Your task to perform on an android device: Go to accessibility settings Image 0: 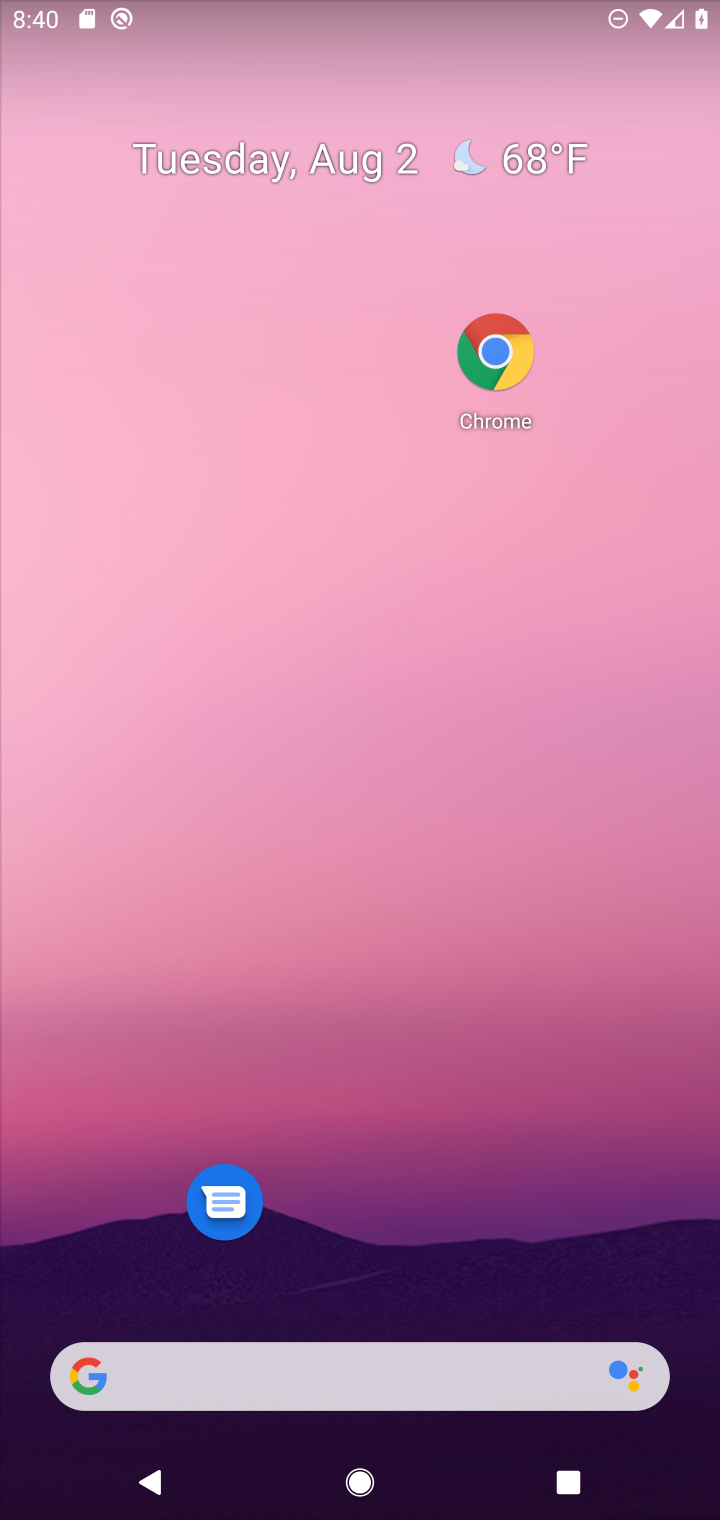
Step 0: drag from (413, 1309) to (515, 178)
Your task to perform on an android device: Go to accessibility settings Image 1: 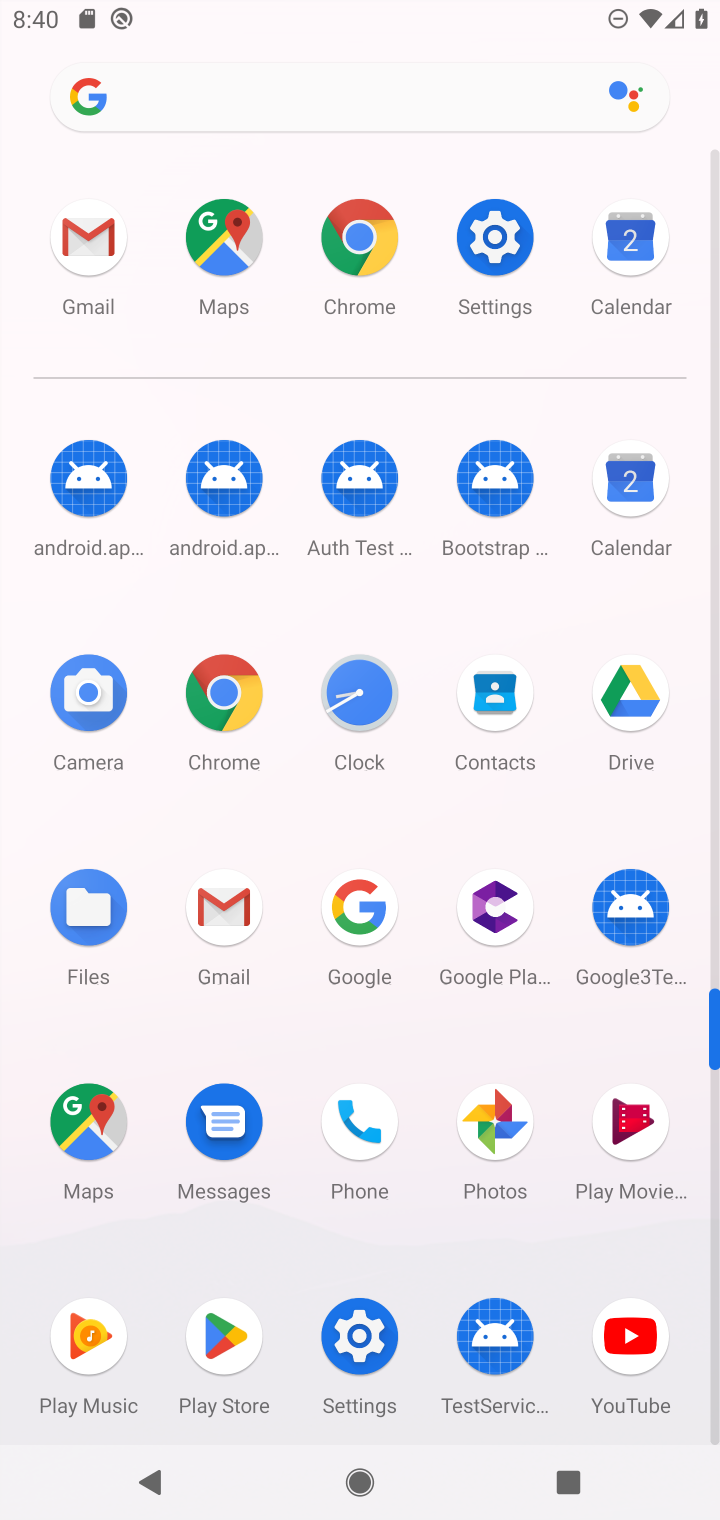
Step 1: click (505, 263)
Your task to perform on an android device: Go to accessibility settings Image 2: 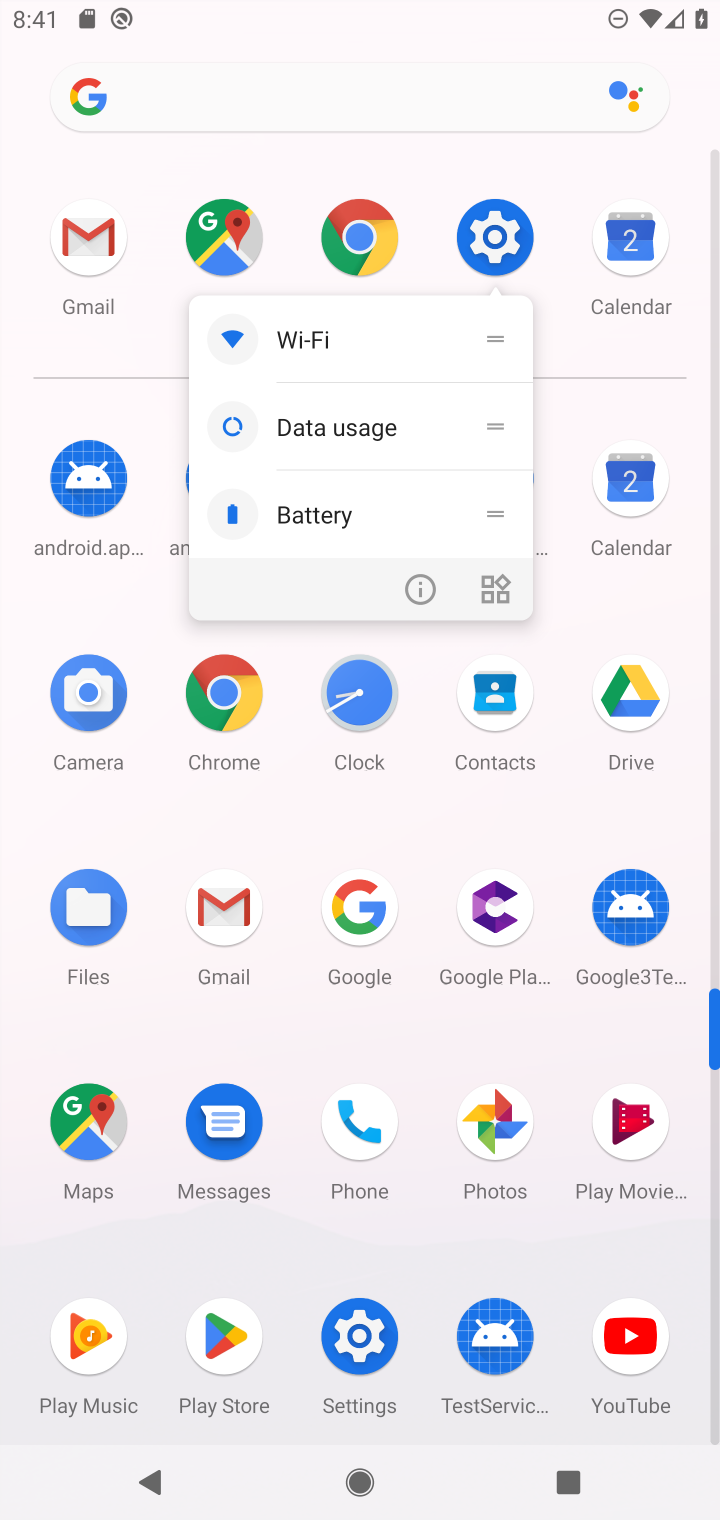
Step 2: click (505, 263)
Your task to perform on an android device: Go to accessibility settings Image 3: 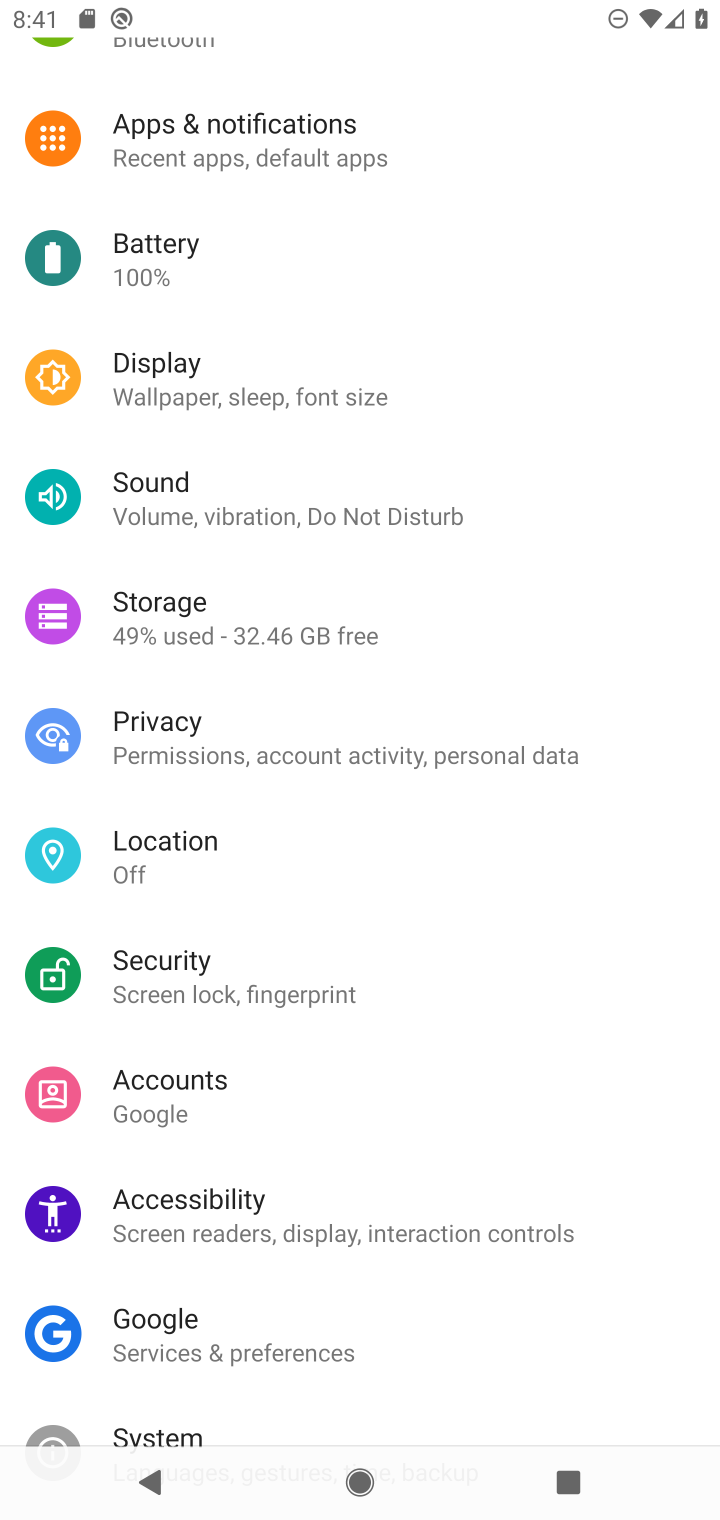
Step 3: click (188, 1203)
Your task to perform on an android device: Go to accessibility settings Image 4: 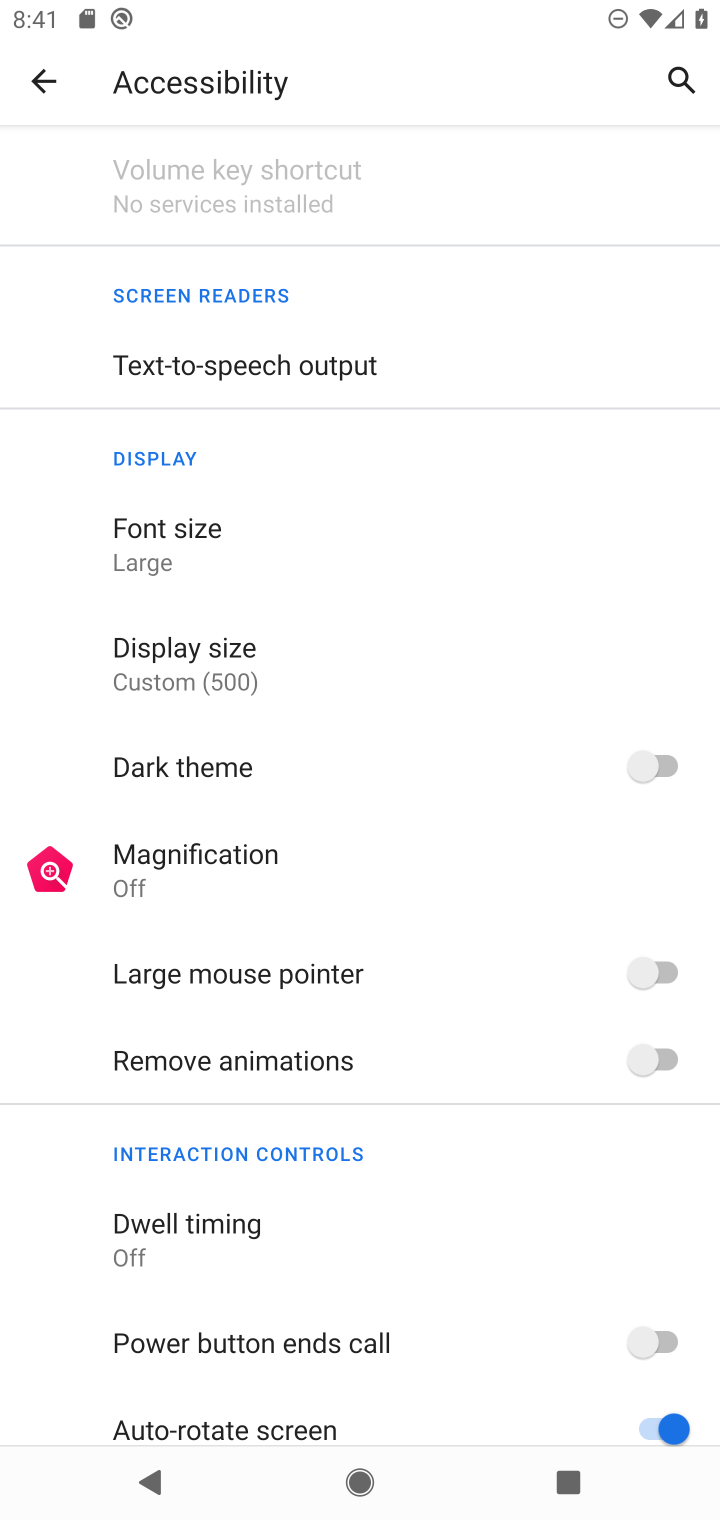
Step 4: task complete